Your task to perform on an android device: Turn off the flashlight Image 0: 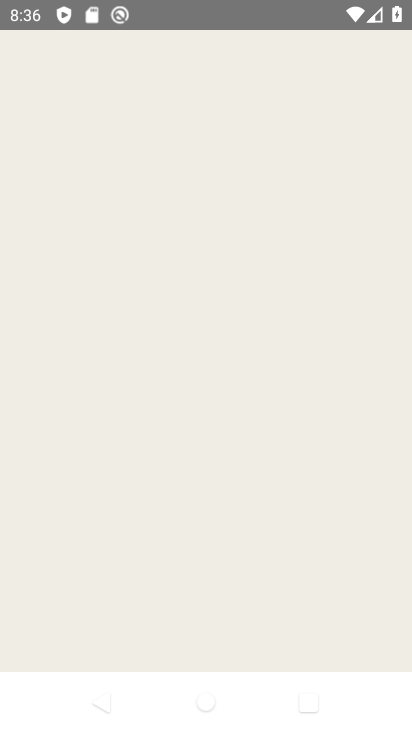
Step 0: press home button
Your task to perform on an android device: Turn off the flashlight Image 1: 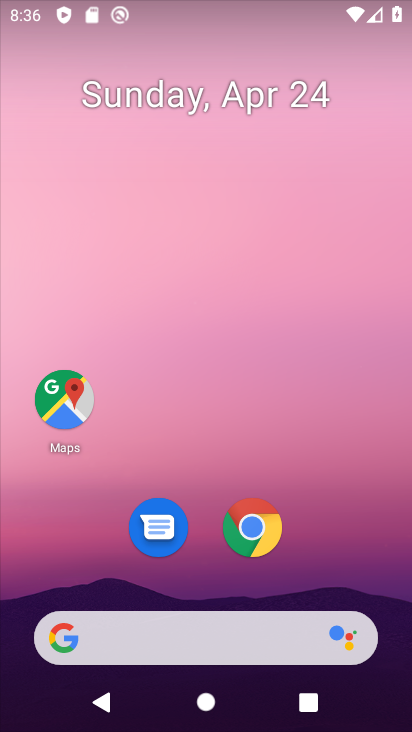
Step 1: drag from (375, 502) to (311, 165)
Your task to perform on an android device: Turn off the flashlight Image 2: 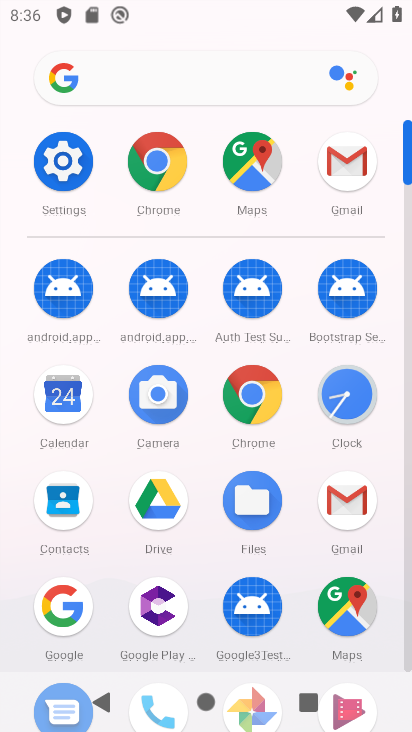
Step 2: click (64, 160)
Your task to perform on an android device: Turn off the flashlight Image 3: 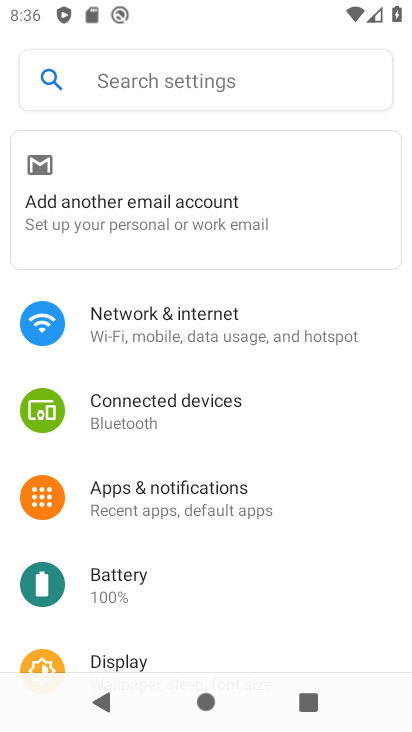
Step 3: task complete